Your task to perform on an android device: uninstall "Pandora - Music & Podcasts" Image 0: 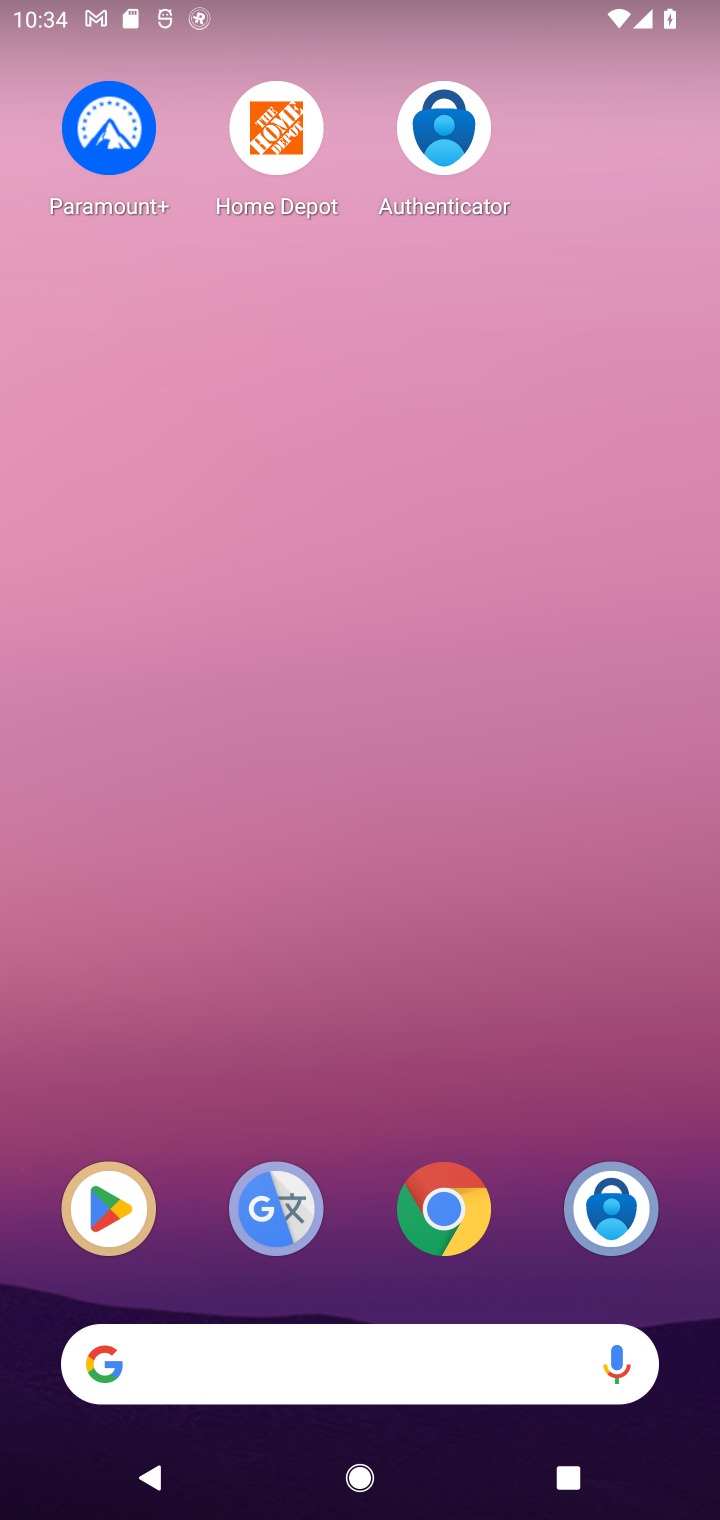
Step 0: drag from (266, 1384) to (425, 357)
Your task to perform on an android device: uninstall "Pandora - Music & Podcasts" Image 1: 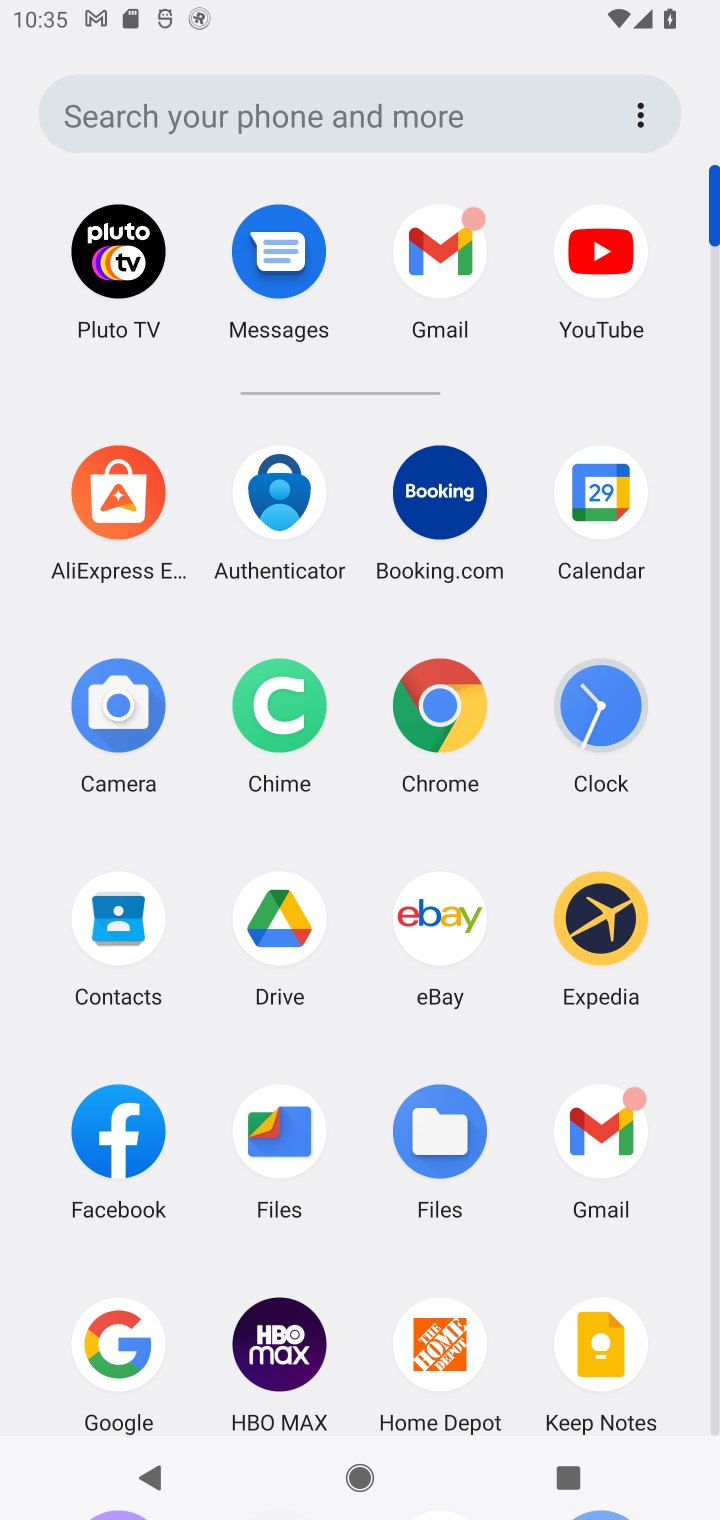
Step 1: drag from (348, 1245) to (398, 577)
Your task to perform on an android device: uninstall "Pandora - Music & Podcasts" Image 2: 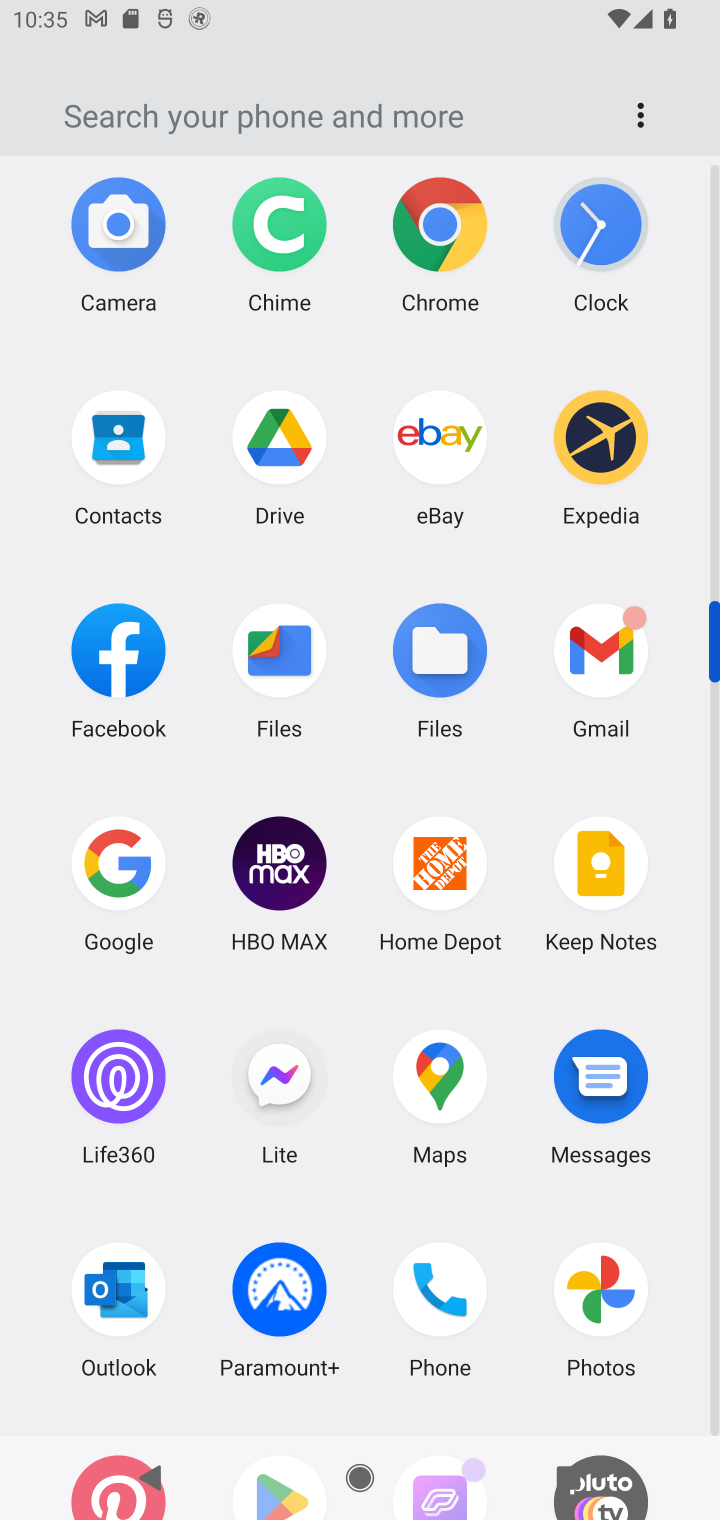
Step 2: drag from (350, 1361) to (325, 652)
Your task to perform on an android device: uninstall "Pandora - Music & Podcasts" Image 3: 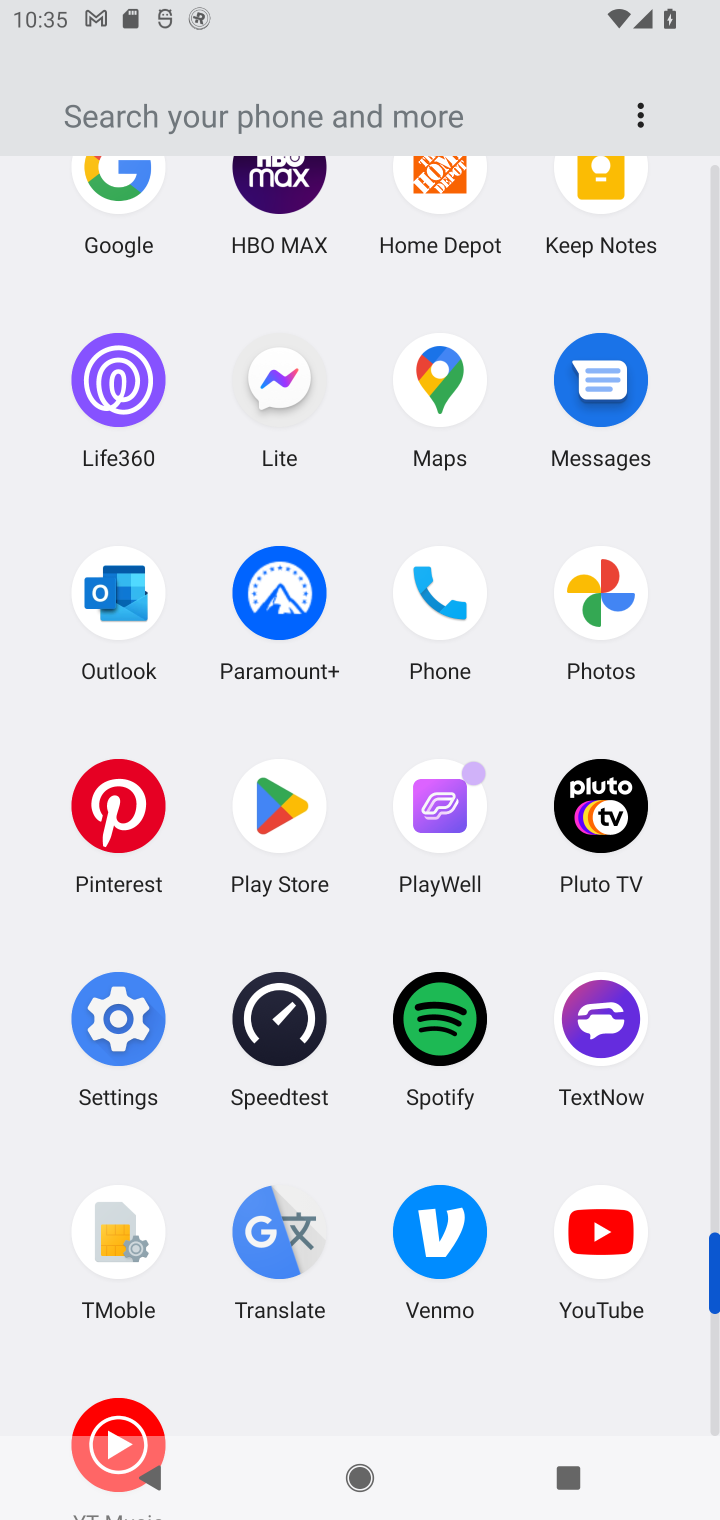
Step 3: click (285, 815)
Your task to perform on an android device: uninstall "Pandora - Music & Podcasts" Image 4: 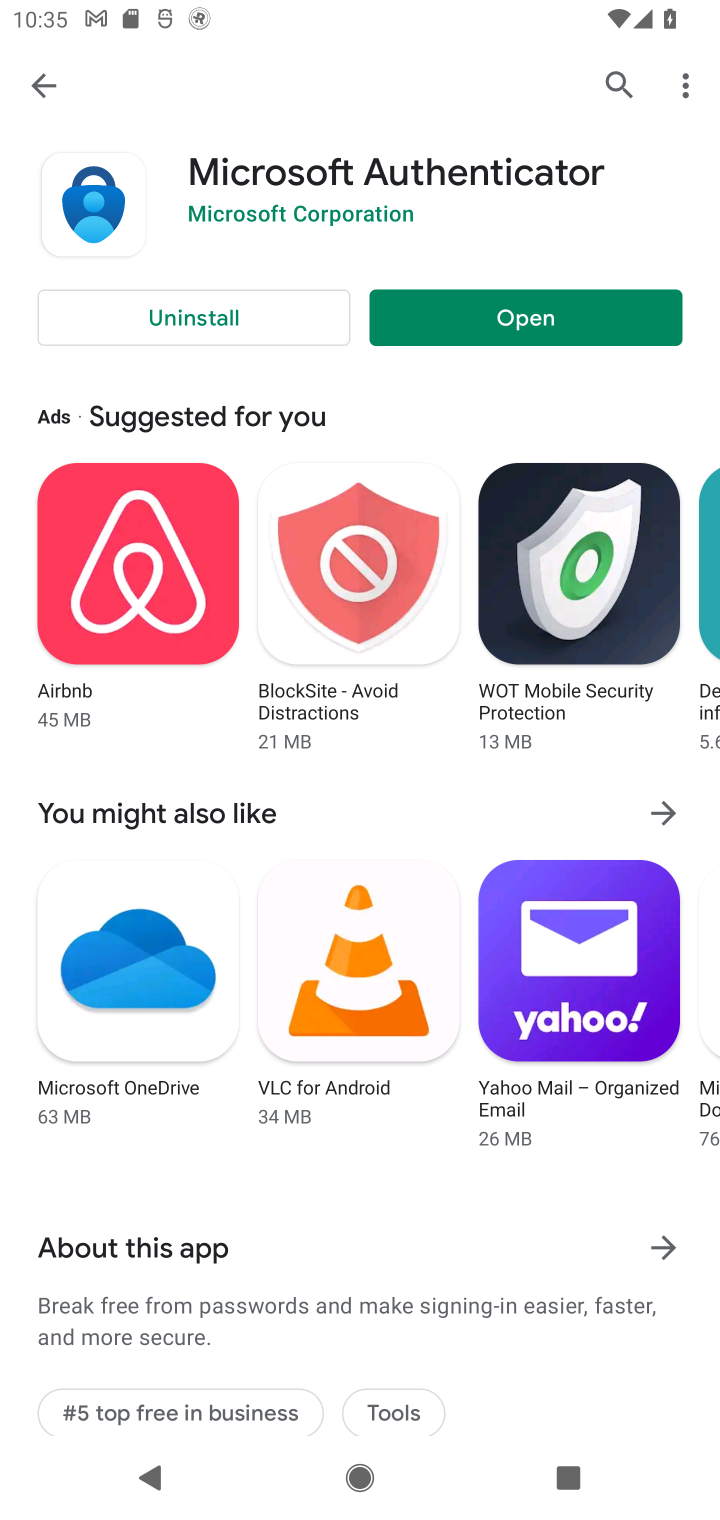
Step 4: click (610, 88)
Your task to perform on an android device: uninstall "Pandora - Music & Podcasts" Image 5: 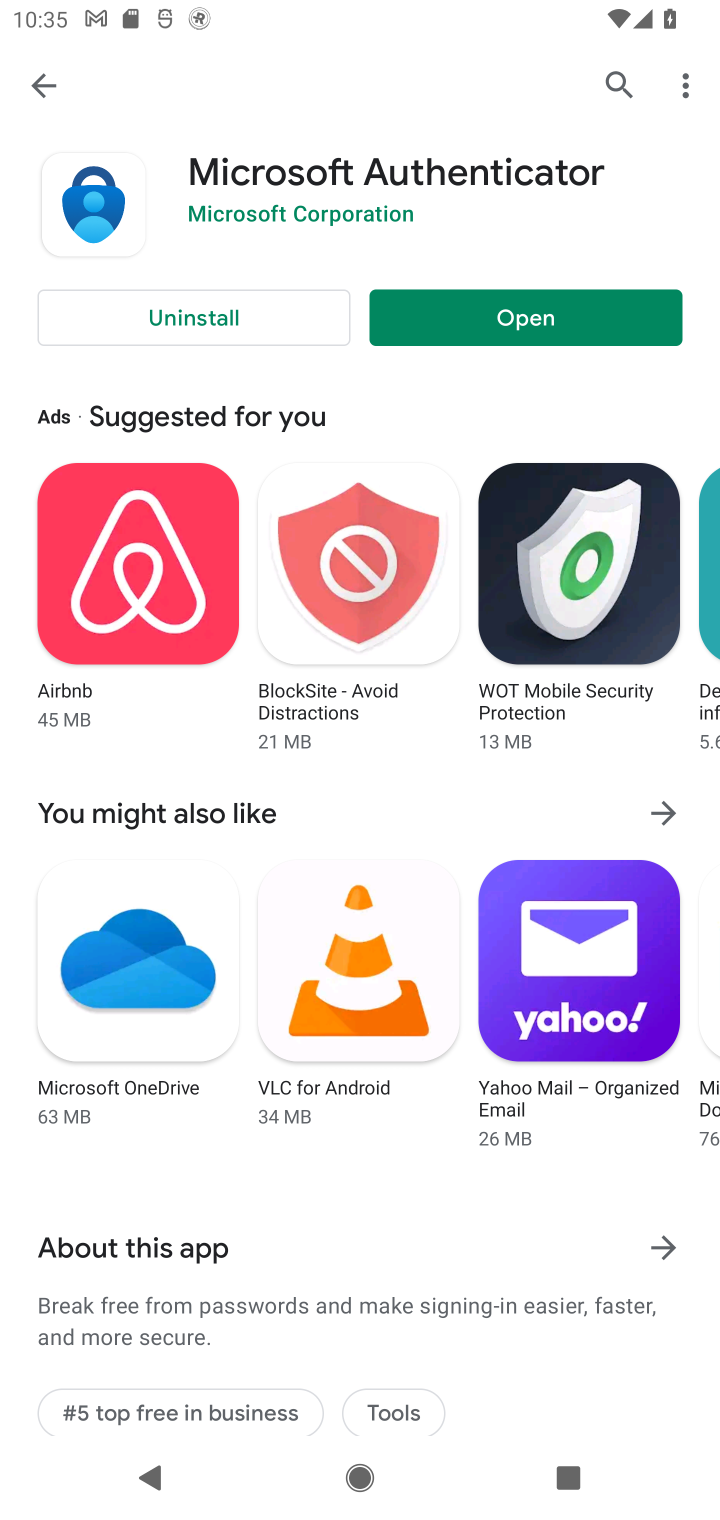
Step 5: click (342, 90)
Your task to perform on an android device: uninstall "Pandora - Music & Podcasts" Image 6: 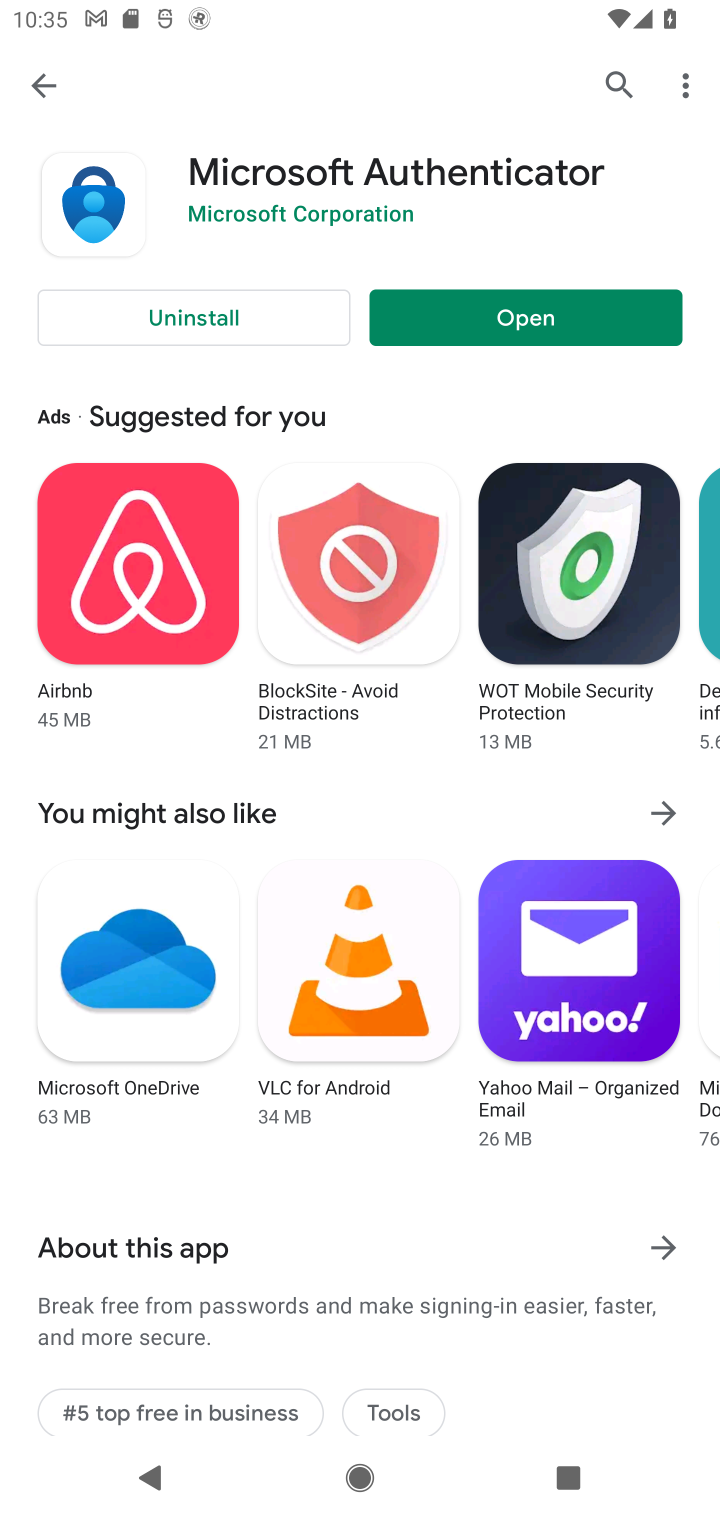
Step 6: click (538, 71)
Your task to perform on an android device: uninstall "Pandora - Music & Podcasts" Image 7: 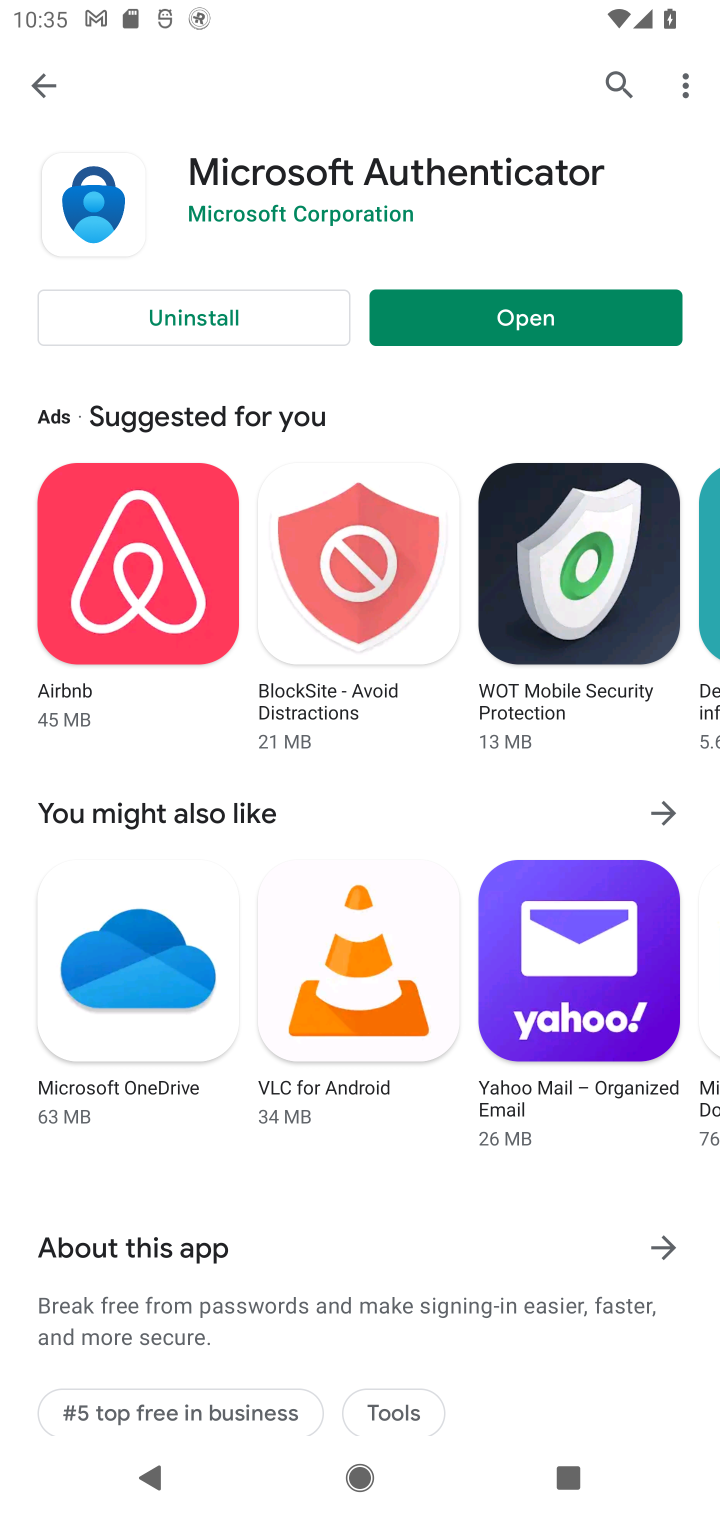
Step 7: click (603, 83)
Your task to perform on an android device: uninstall "Pandora - Music & Podcasts" Image 8: 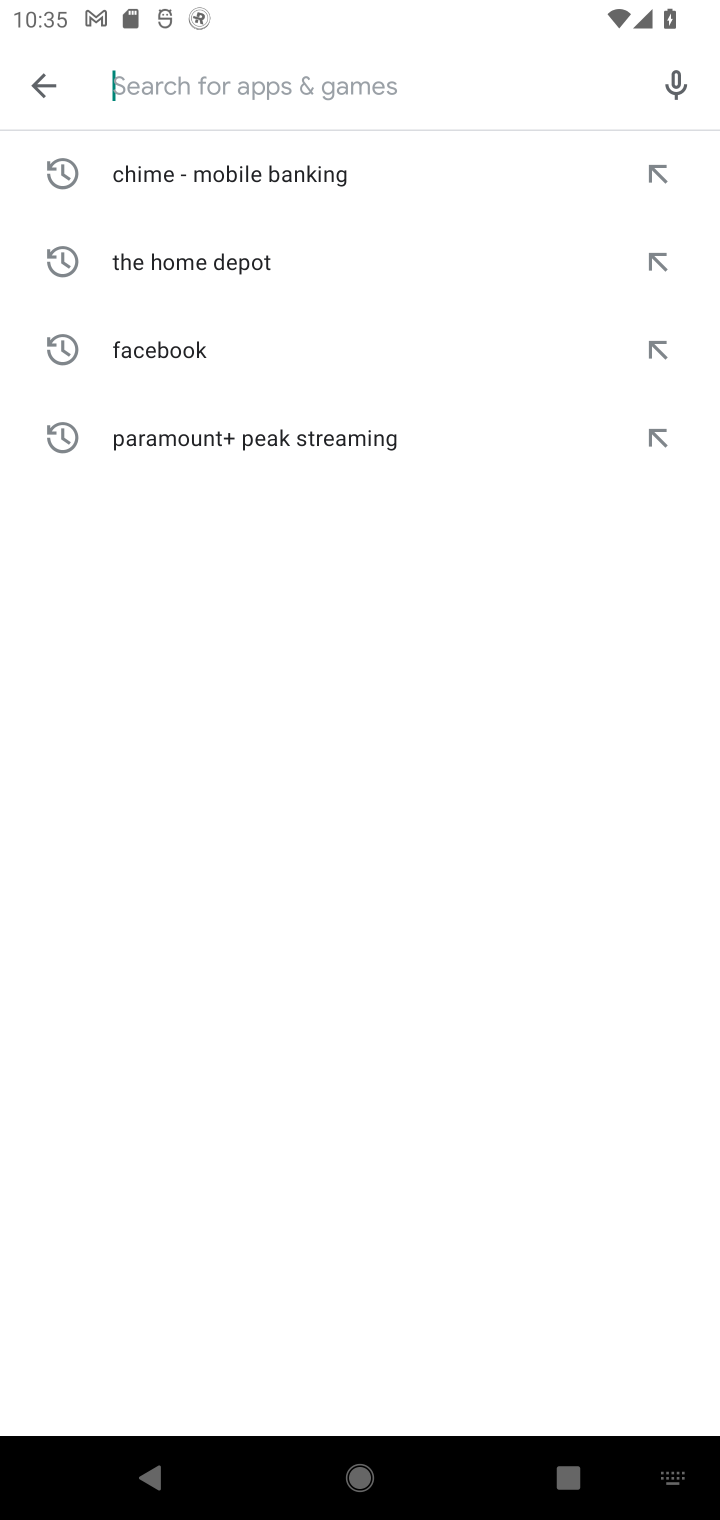
Step 8: click (283, 91)
Your task to perform on an android device: uninstall "Pandora - Music & Podcasts" Image 9: 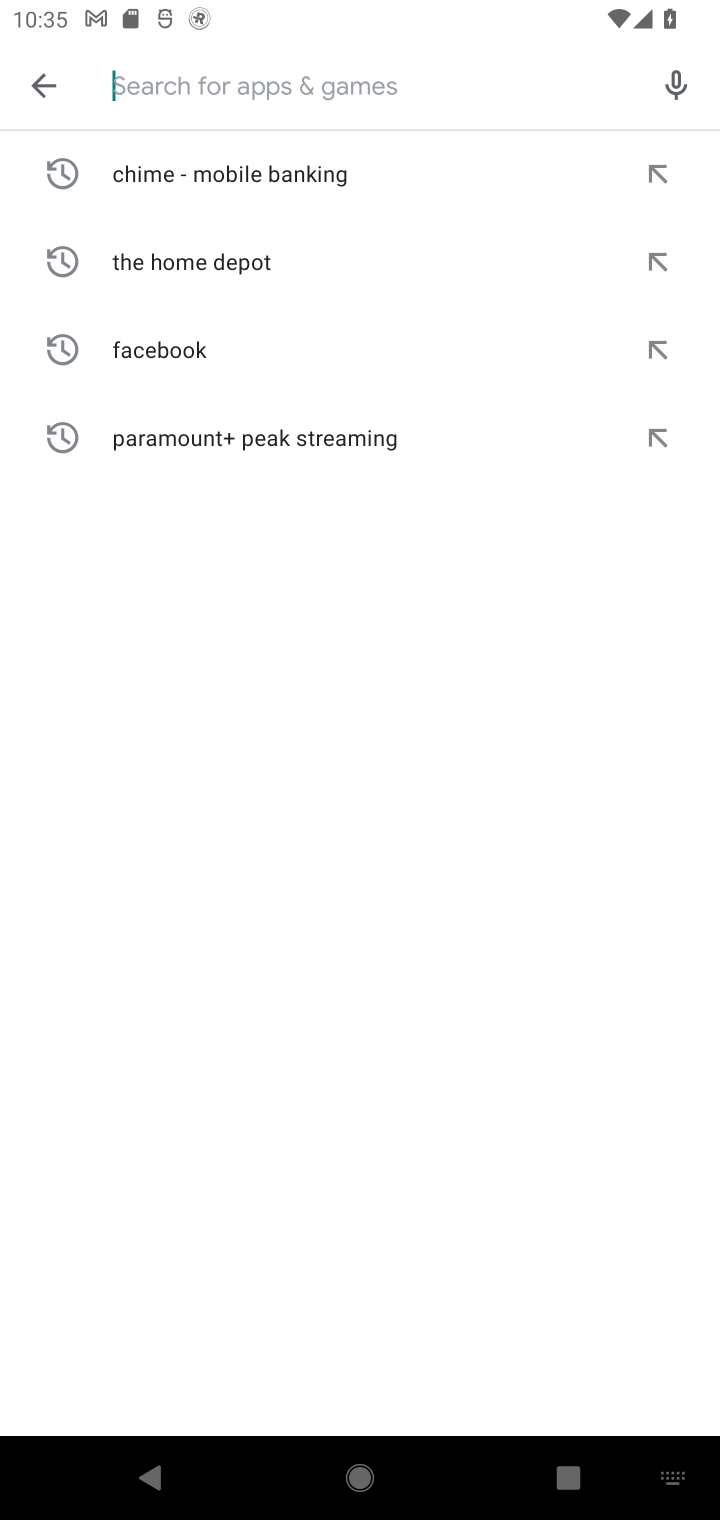
Step 9: type "Pandora - Music & Podcasts"
Your task to perform on an android device: uninstall "Pandora - Music & Podcasts" Image 10: 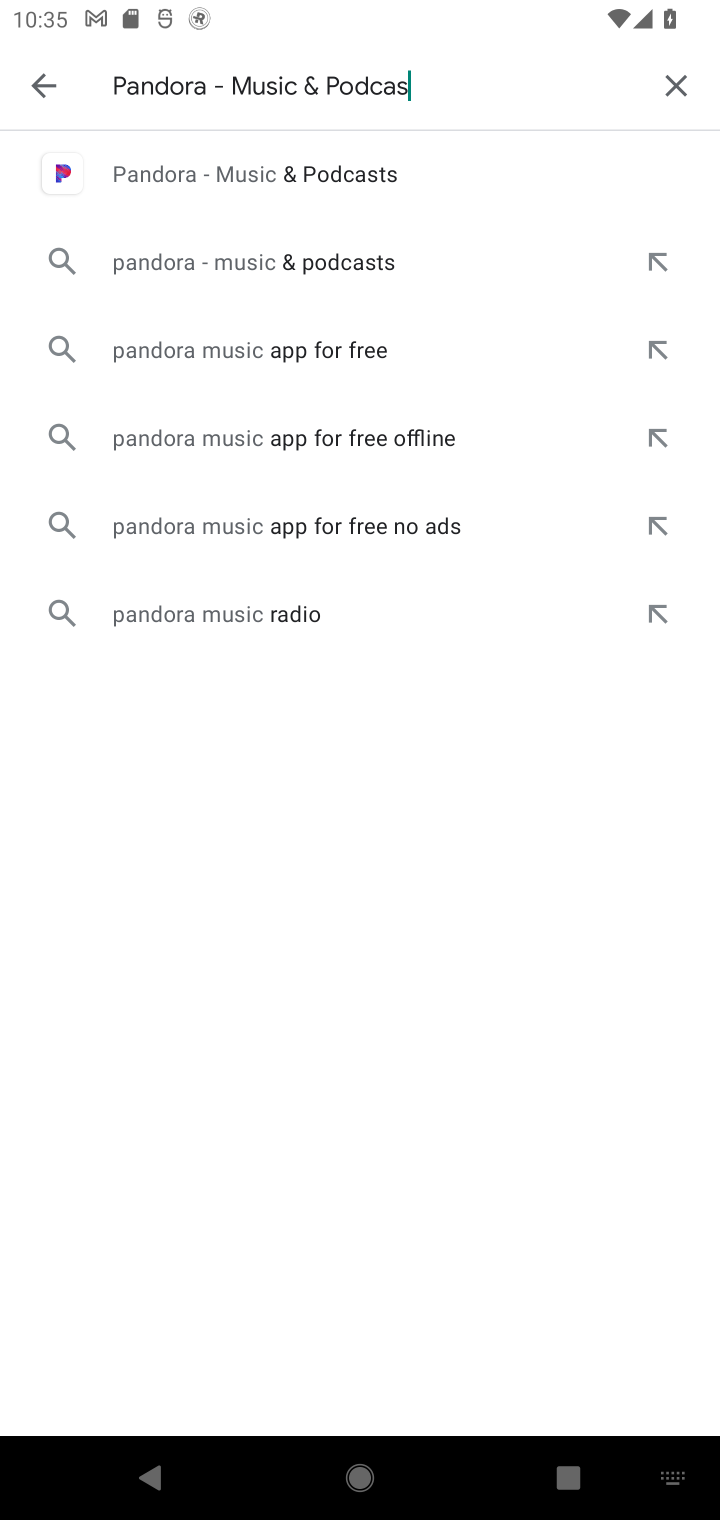
Step 10: type ""
Your task to perform on an android device: uninstall "Pandora - Music & Podcasts" Image 11: 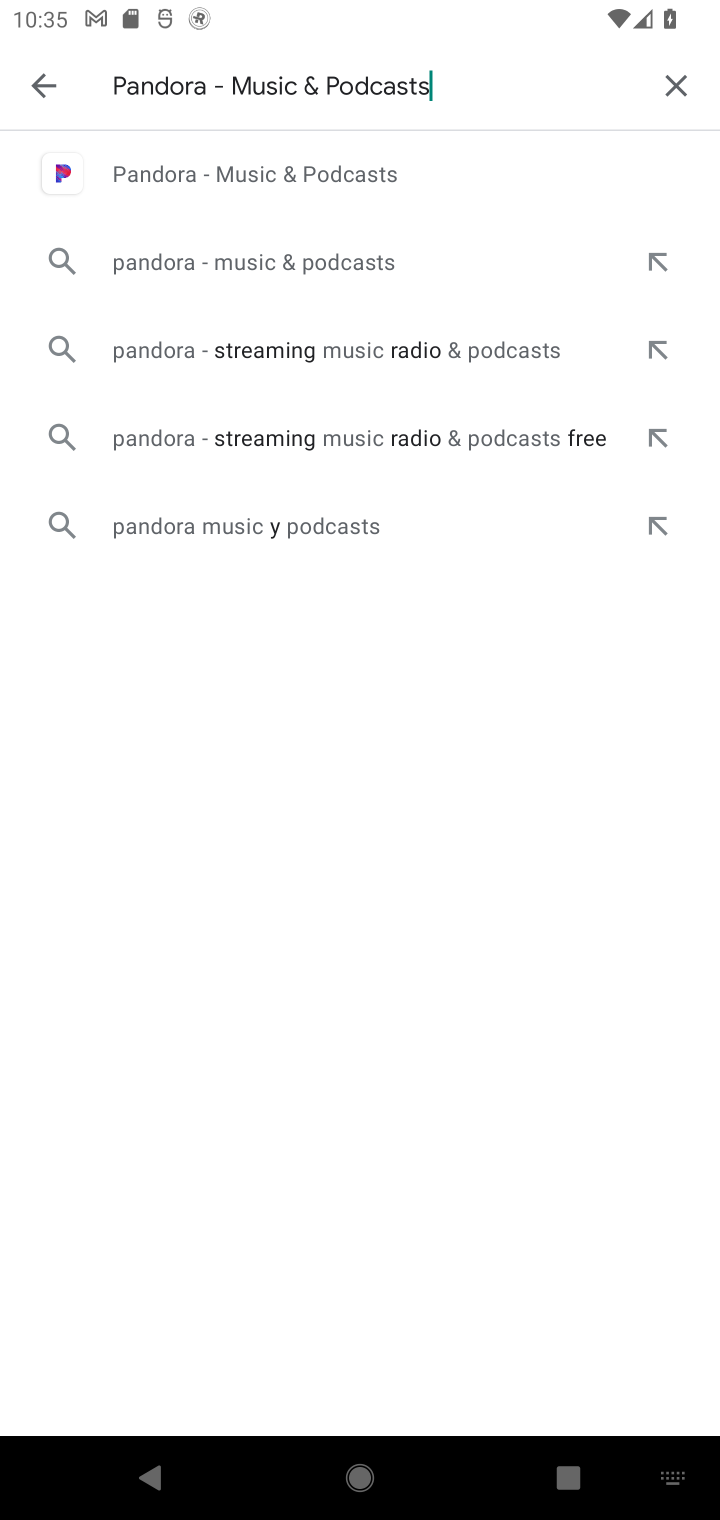
Step 11: click (345, 176)
Your task to perform on an android device: uninstall "Pandora - Music & Podcasts" Image 12: 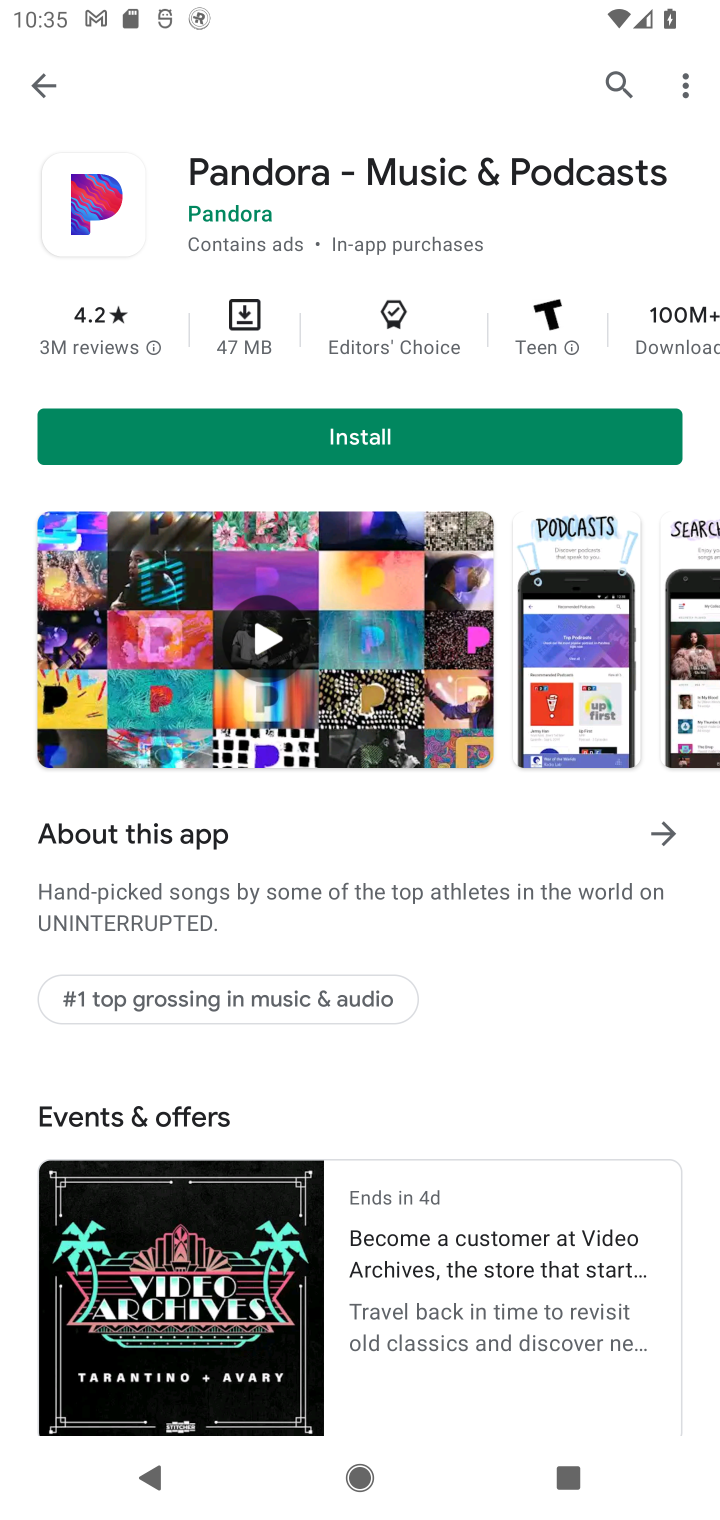
Step 12: task complete